Your task to perform on an android device: Open location settings Image 0: 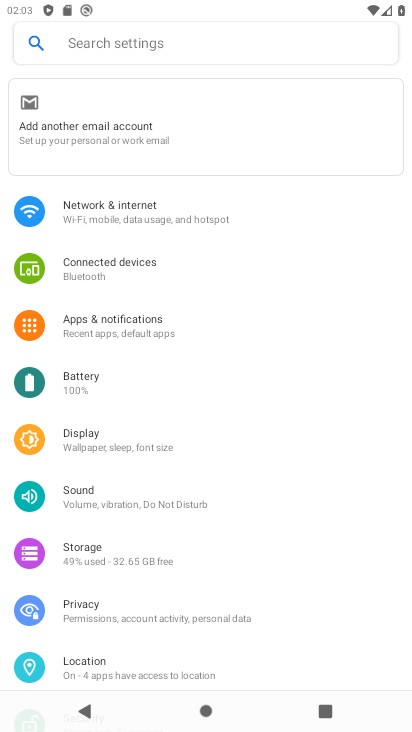
Step 0: drag from (223, 633) to (184, 289)
Your task to perform on an android device: Open location settings Image 1: 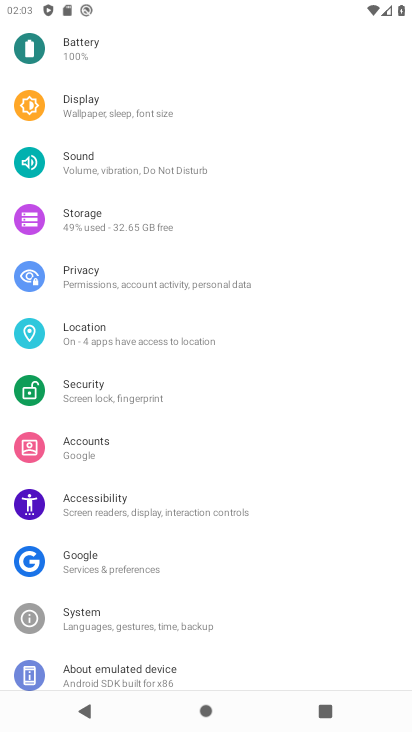
Step 1: click (130, 341)
Your task to perform on an android device: Open location settings Image 2: 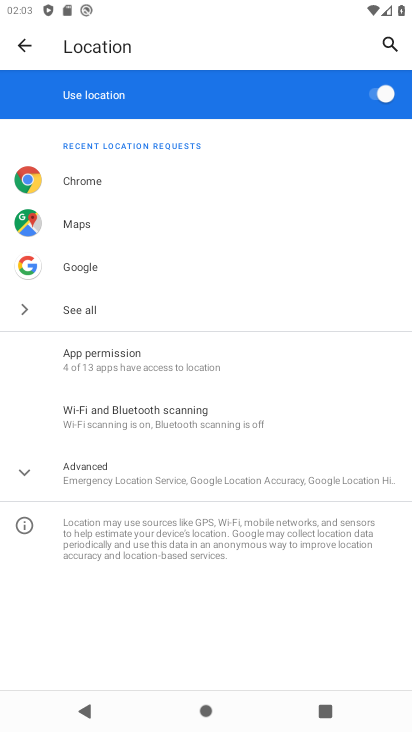
Step 2: task complete